Your task to perform on an android device: turn off priority inbox in the gmail app Image 0: 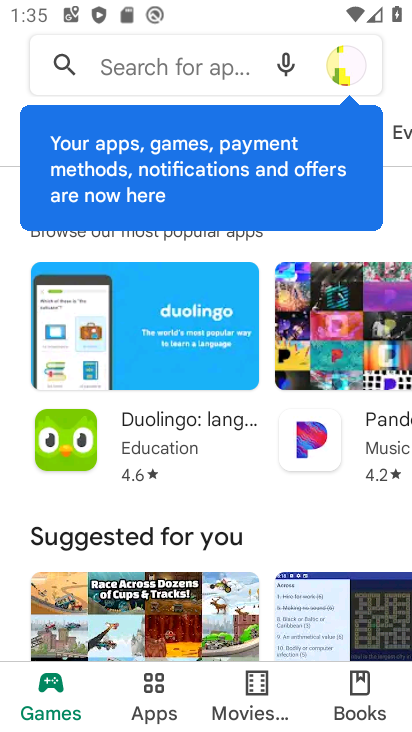
Step 0: press back button
Your task to perform on an android device: turn off priority inbox in the gmail app Image 1: 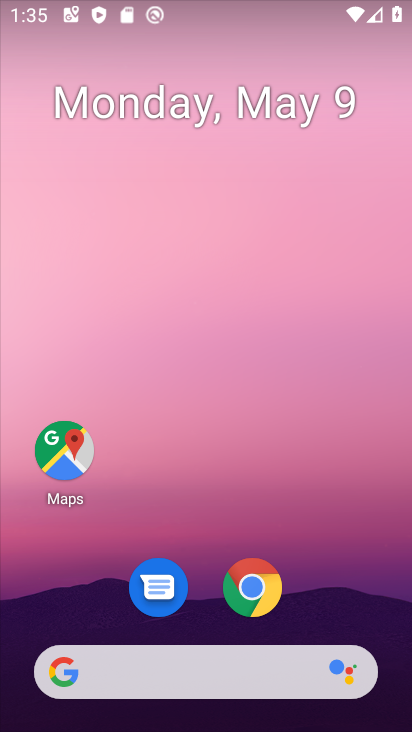
Step 1: drag from (84, 633) to (107, 80)
Your task to perform on an android device: turn off priority inbox in the gmail app Image 2: 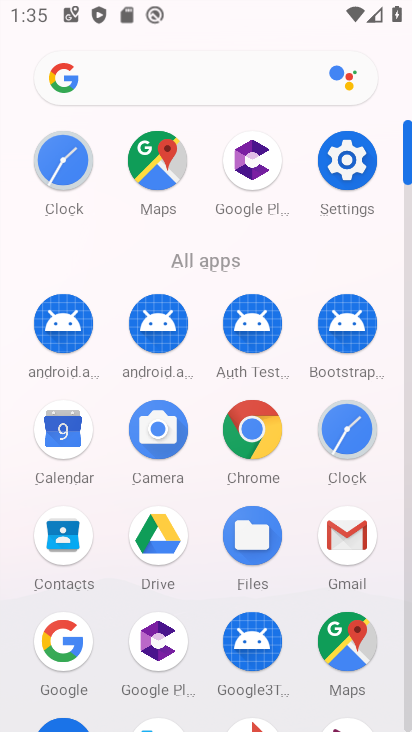
Step 2: click (337, 539)
Your task to perform on an android device: turn off priority inbox in the gmail app Image 3: 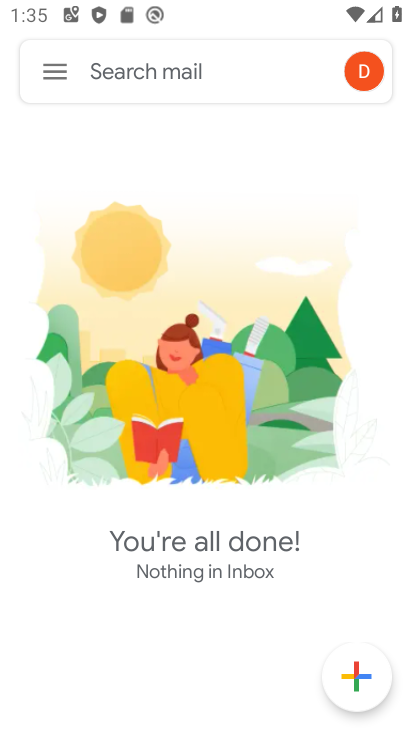
Step 3: click (63, 74)
Your task to perform on an android device: turn off priority inbox in the gmail app Image 4: 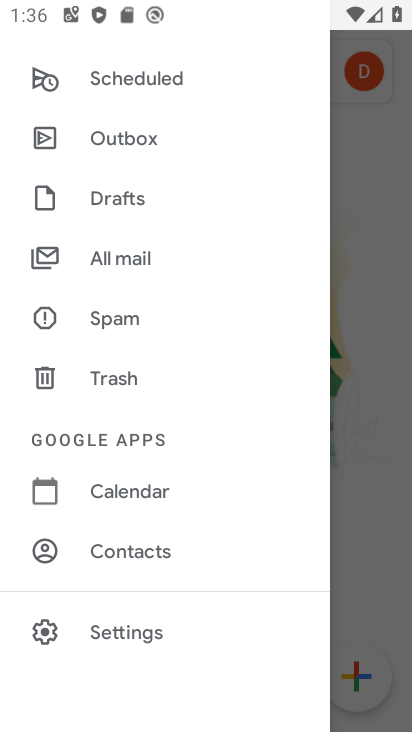
Step 4: click (233, 619)
Your task to perform on an android device: turn off priority inbox in the gmail app Image 5: 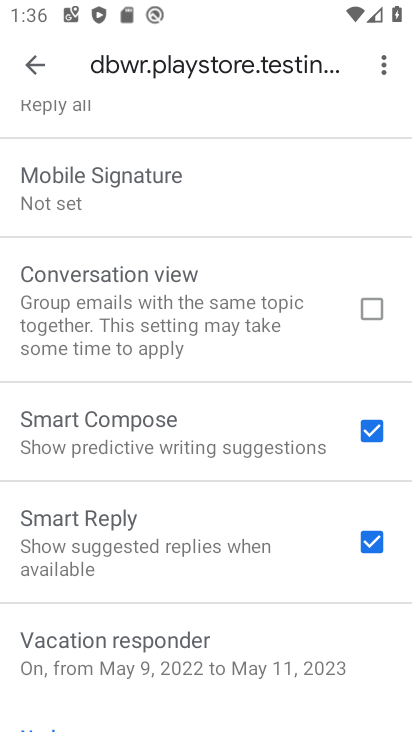
Step 5: drag from (233, 619) to (285, 345)
Your task to perform on an android device: turn off priority inbox in the gmail app Image 6: 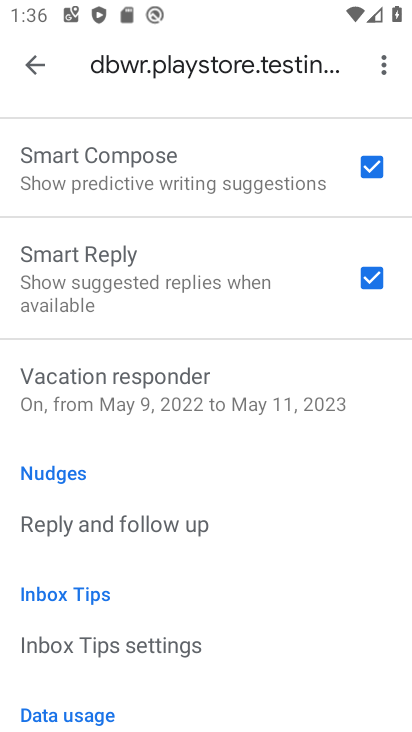
Step 6: drag from (271, 222) to (224, 451)
Your task to perform on an android device: turn off priority inbox in the gmail app Image 7: 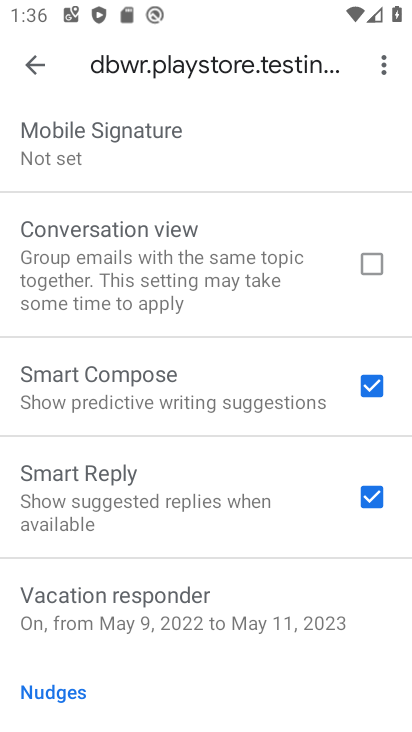
Step 7: drag from (292, 158) to (295, 326)
Your task to perform on an android device: turn off priority inbox in the gmail app Image 8: 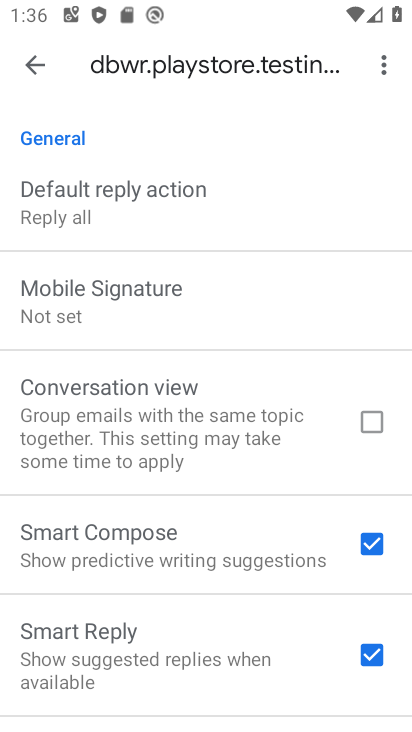
Step 8: drag from (316, 243) to (241, 579)
Your task to perform on an android device: turn off priority inbox in the gmail app Image 9: 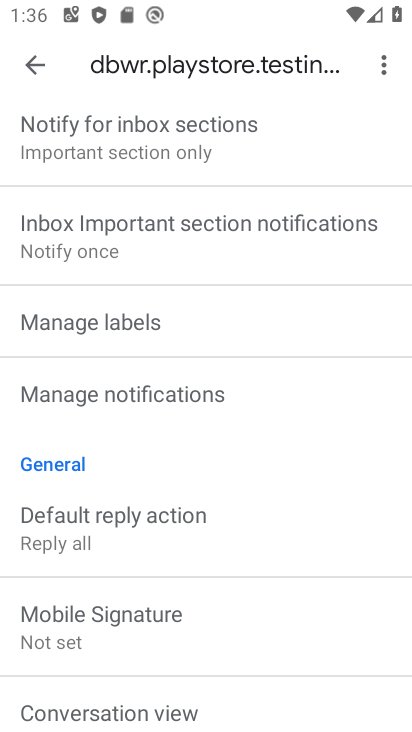
Step 9: drag from (300, 270) to (210, 605)
Your task to perform on an android device: turn off priority inbox in the gmail app Image 10: 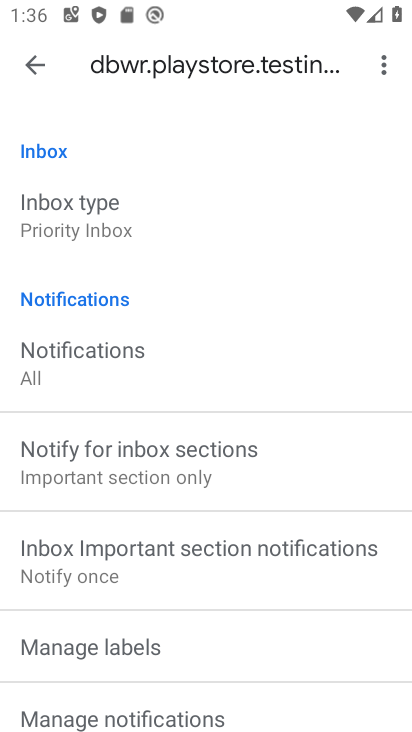
Step 10: click (234, 235)
Your task to perform on an android device: turn off priority inbox in the gmail app Image 11: 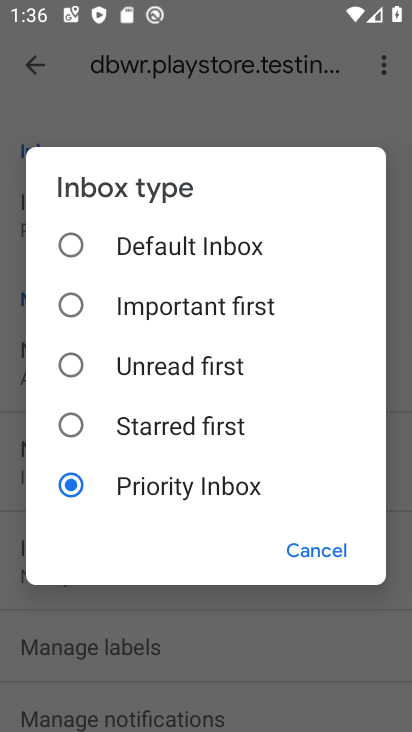
Step 11: click (234, 235)
Your task to perform on an android device: turn off priority inbox in the gmail app Image 12: 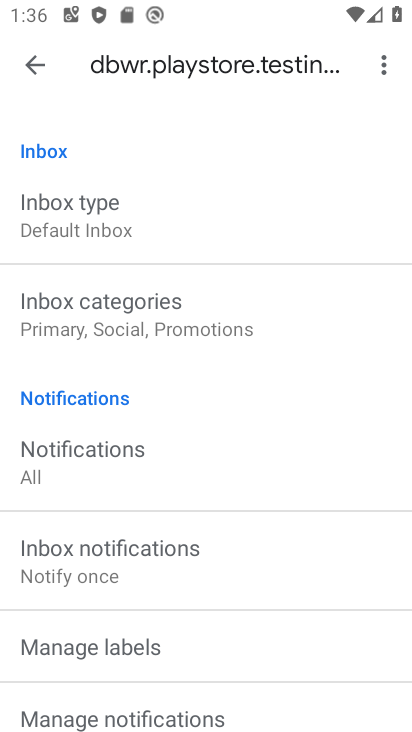
Step 12: task complete